Your task to perform on an android device: turn off wifi Image 0: 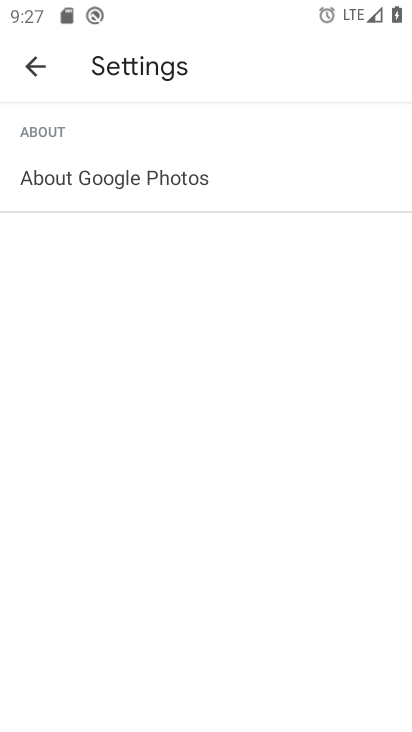
Step 0: press home button
Your task to perform on an android device: turn off wifi Image 1: 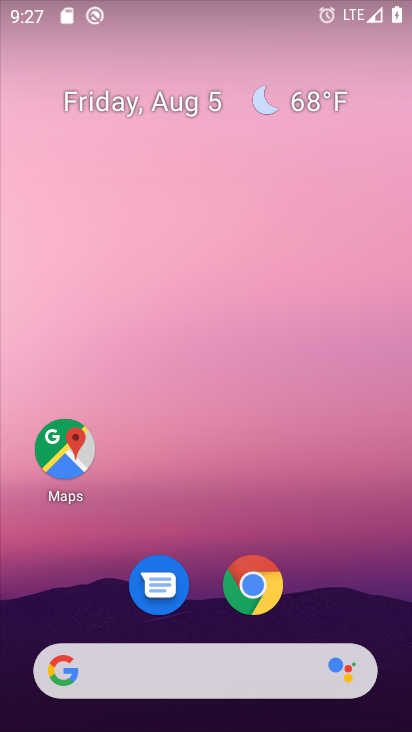
Step 1: drag from (213, 531) to (265, 18)
Your task to perform on an android device: turn off wifi Image 2: 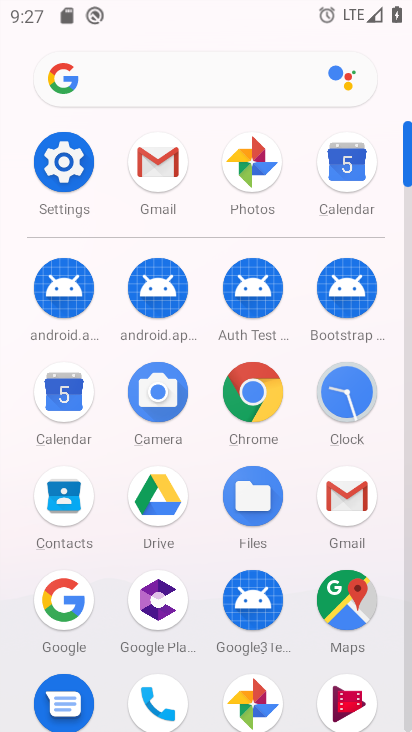
Step 2: click (80, 170)
Your task to perform on an android device: turn off wifi Image 3: 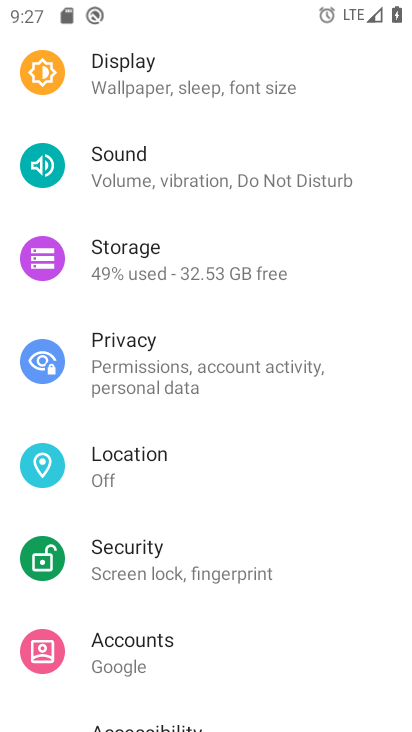
Step 3: drag from (225, 226) to (176, 532)
Your task to perform on an android device: turn off wifi Image 4: 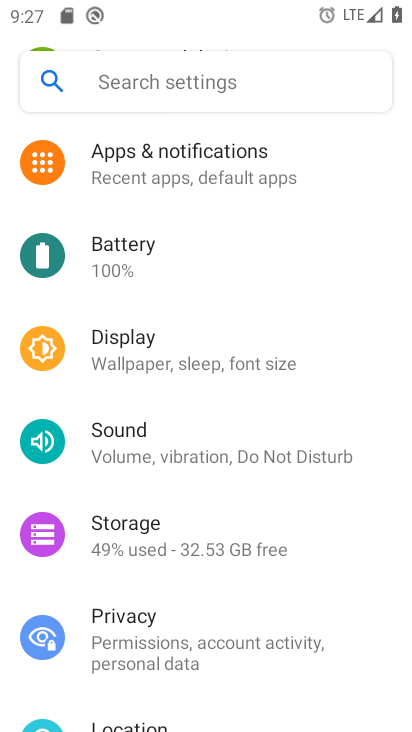
Step 4: drag from (238, 319) to (224, 582)
Your task to perform on an android device: turn off wifi Image 5: 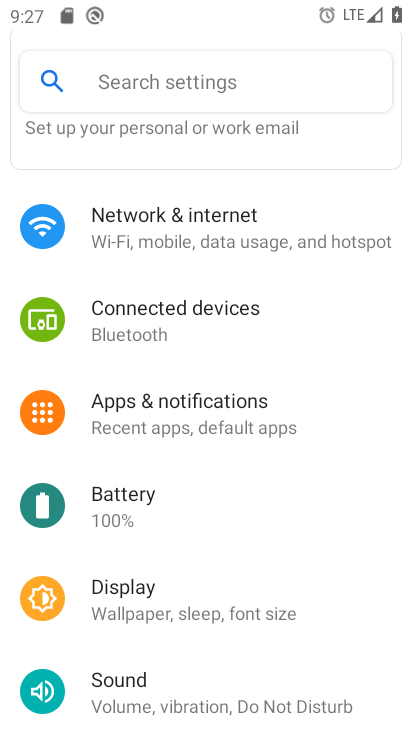
Step 5: click (277, 245)
Your task to perform on an android device: turn off wifi Image 6: 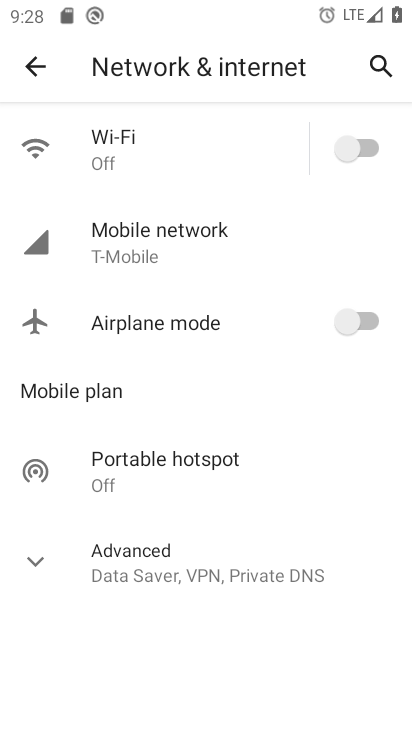
Step 6: task complete